Your task to perform on an android device: Empty the shopping cart on newegg. Image 0: 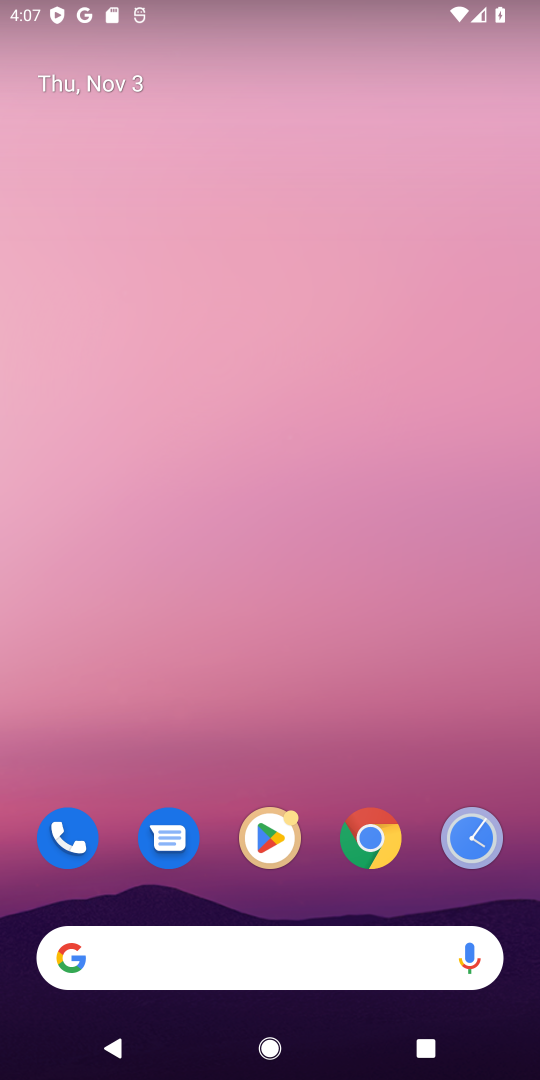
Step 0: click (365, 845)
Your task to perform on an android device: Empty the shopping cart on newegg. Image 1: 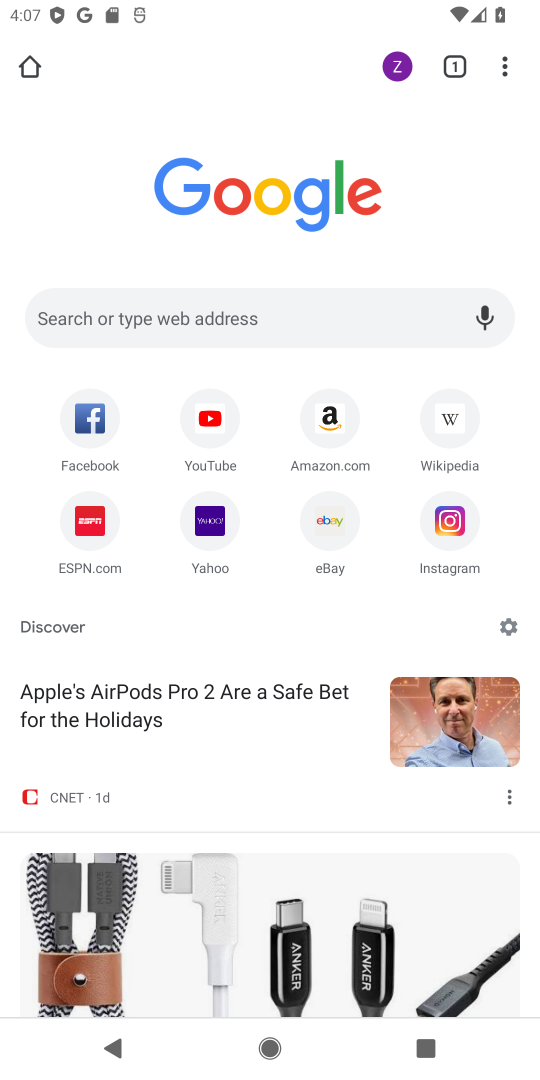
Step 1: click (277, 315)
Your task to perform on an android device: Empty the shopping cart on newegg. Image 2: 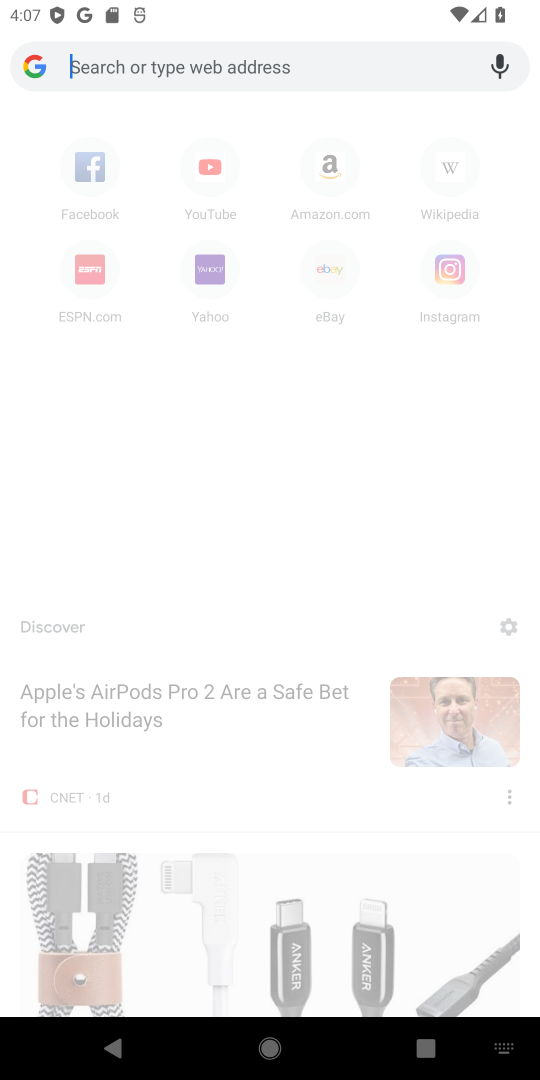
Step 2: type "newegg"
Your task to perform on an android device: Empty the shopping cart on newegg. Image 3: 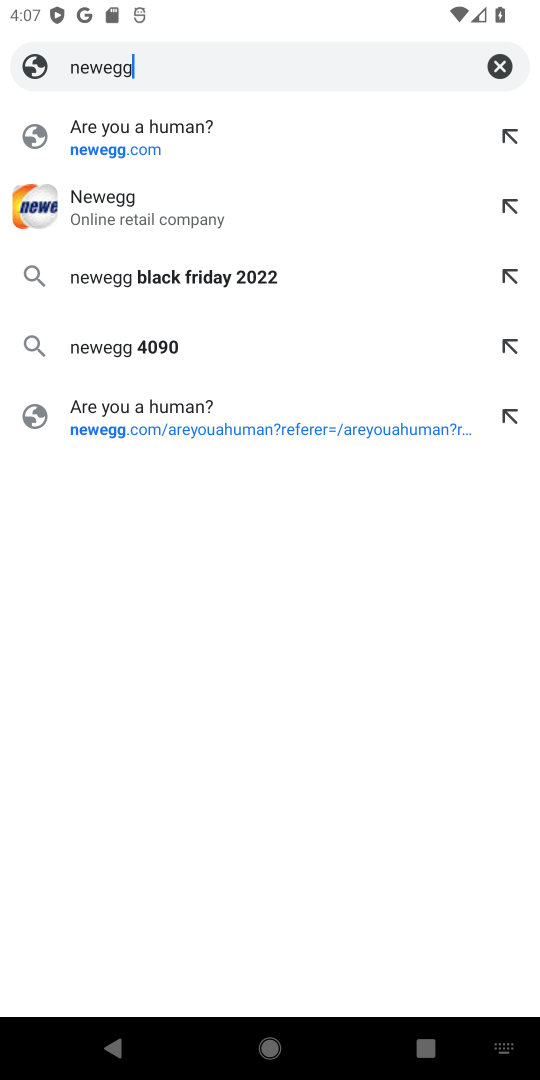
Step 3: click (184, 128)
Your task to perform on an android device: Empty the shopping cart on newegg. Image 4: 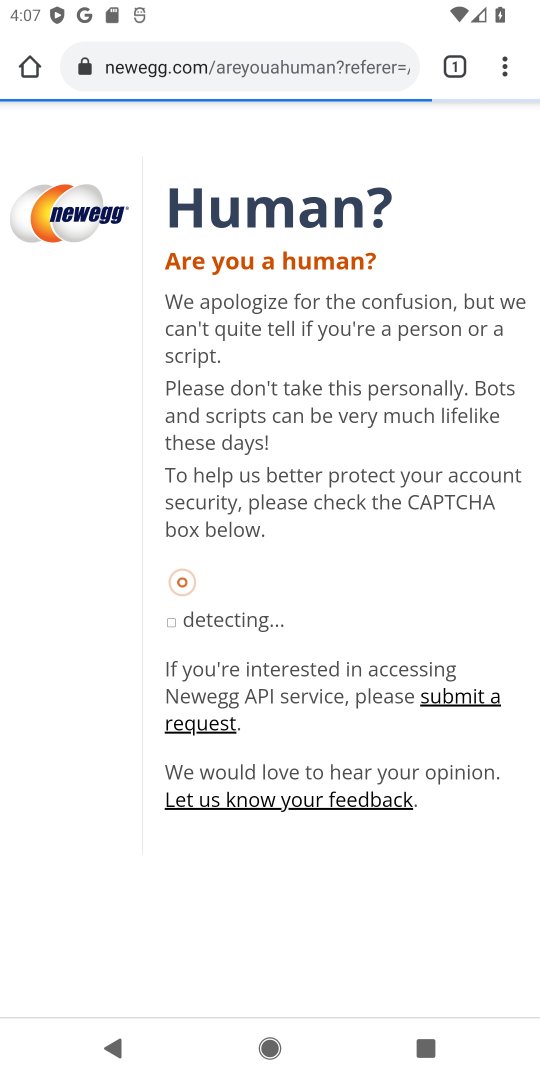
Step 4: task complete